Your task to perform on an android device: Open Google Image 0: 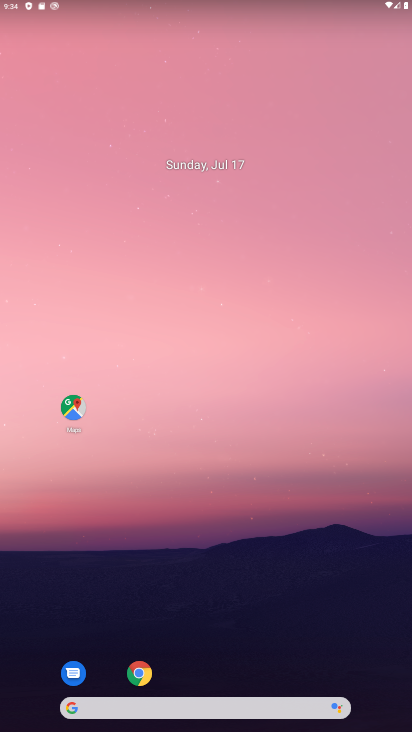
Step 0: drag from (160, 655) to (200, 289)
Your task to perform on an android device: Open Google Image 1: 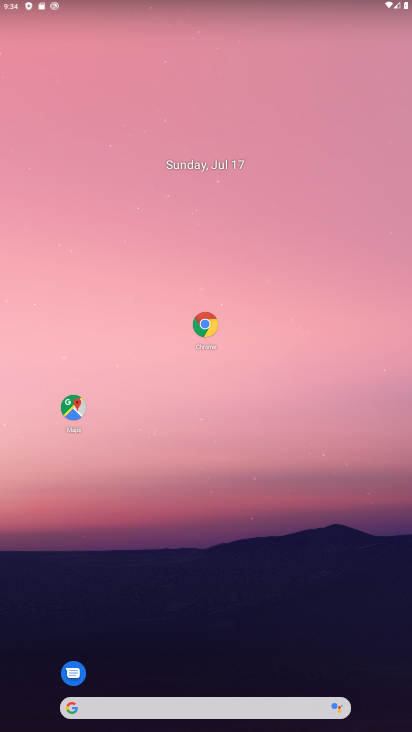
Step 1: drag from (178, 692) to (244, 84)
Your task to perform on an android device: Open Google Image 2: 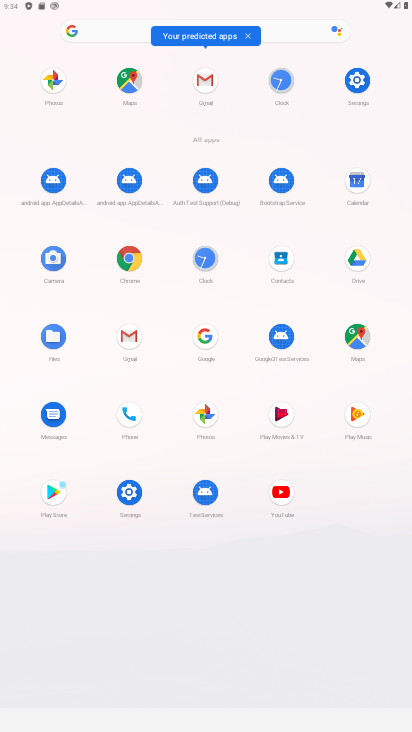
Step 2: click (201, 339)
Your task to perform on an android device: Open Google Image 3: 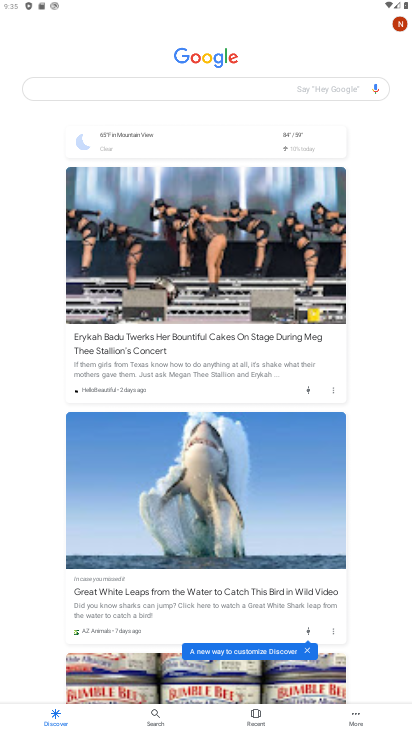
Step 3: task complete